Your task to perform on an android device: toggle data saver in the chrome app Image 0: 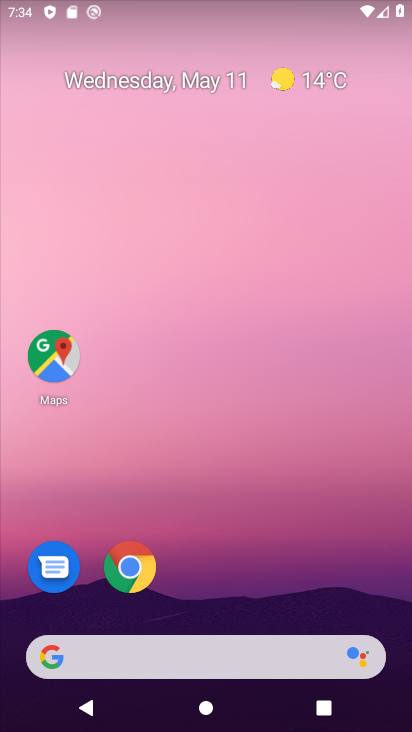
Step 0: drag from (213, 575) to (225, 166)
Your task to perform on an android device: toggle data saver in the chrome app Image 1: 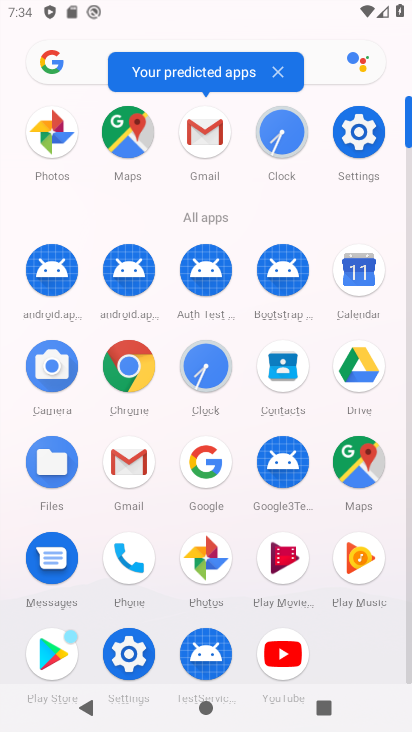
Step 1: click (130, 413)
Your task to perform on an android device: toggle data saver in the chrome app Image 2: 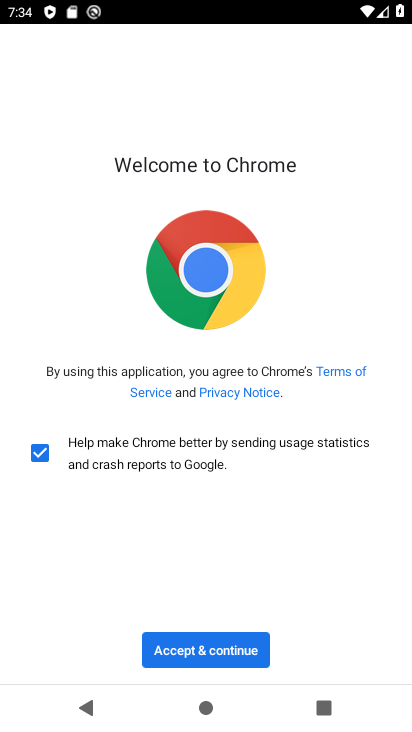
Step 2: click (228, 652)
Your task to perform on an android device: toggle data saver in the chrome app Image 3: 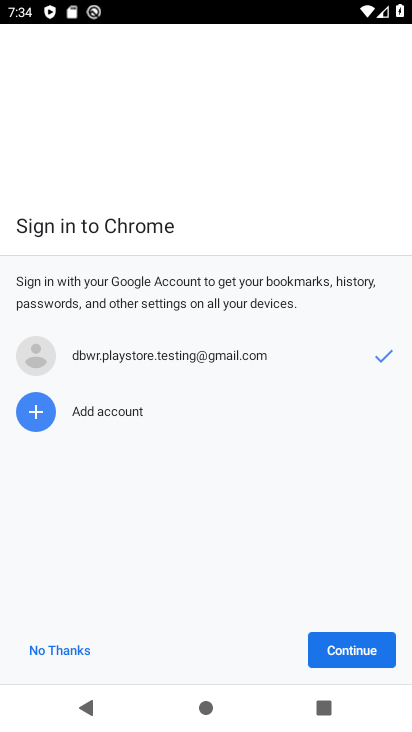
Step 3: click (343, 664)
Your task to perform on an android device: toggle data saver in the chrome app Image 4: 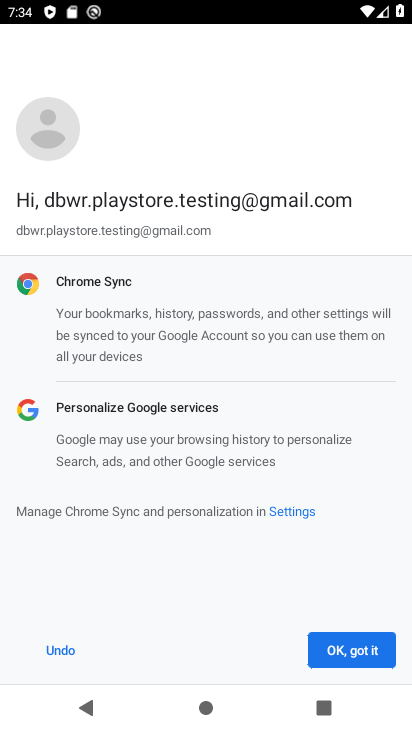
Step 4: click (343, 664)
Your task to perform on an android device: toggle data saver in the chrome app Image 5: 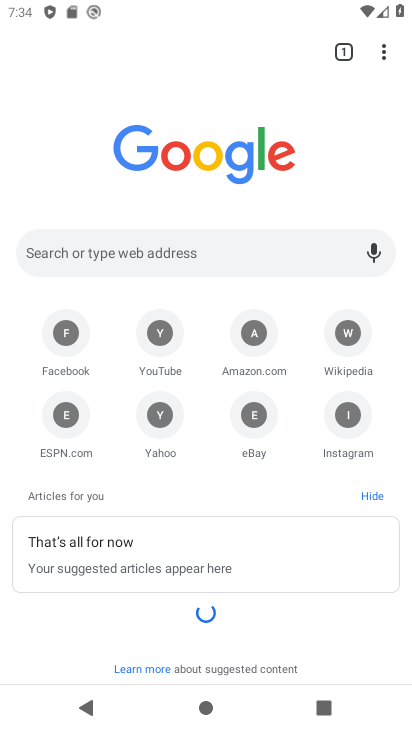
Step 5: click (379, 50)
Your task to perform on an android device: toggle data saver in the chrome app Image 6: 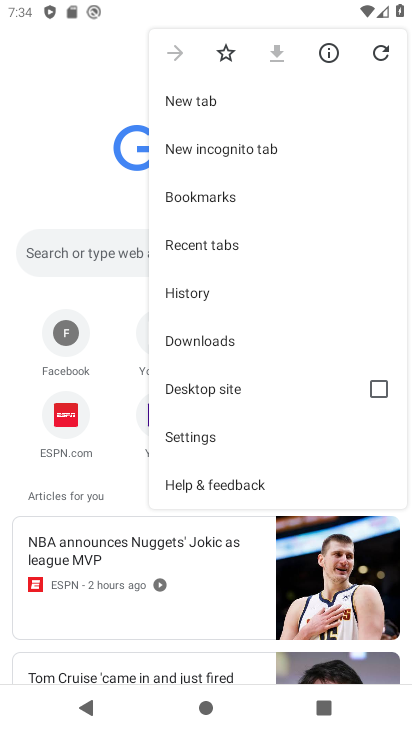
Step 6: click (210, 442)
Your task to perform on an android device: toggle data saver in the chrome app Image 7: 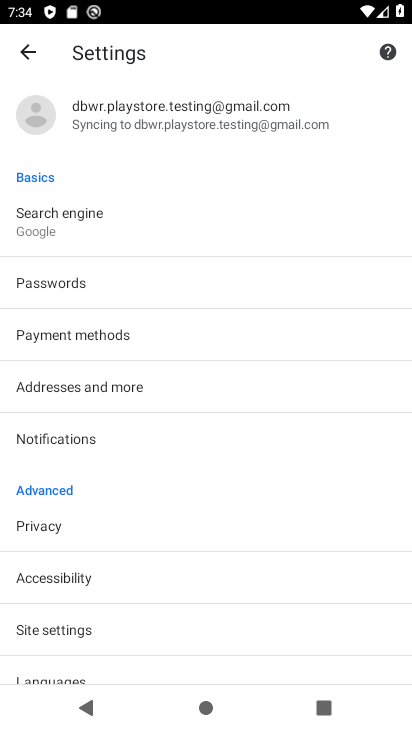
Step 7: drag from (180, 626) to (200, 256)
Your task to perform on an android device: toggle data saver in the chrome app Image 8: 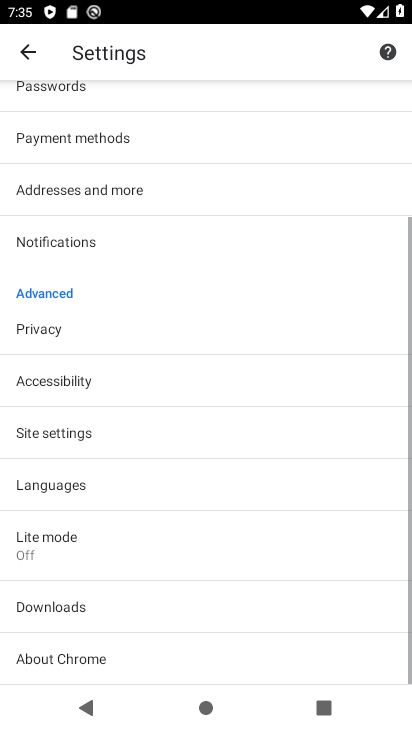
Step 8: drag from (100, 575) to (153, 406)
Your task to perform on an android device: toggle data saver in the chrome app Image 9: 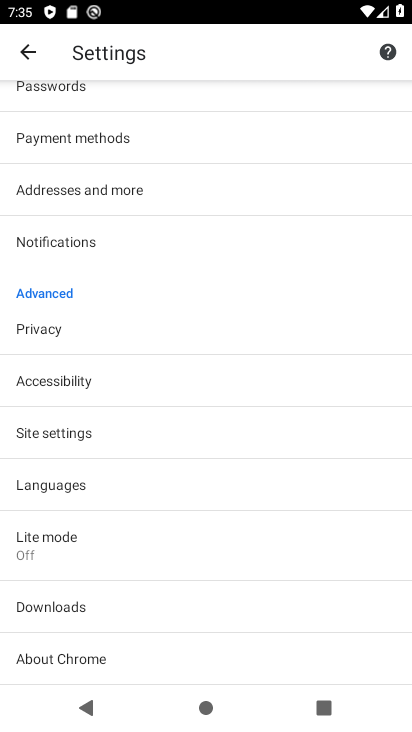
Step 9: click (156, 558)
Your task to perform on an android device: toggle data saver in the chrome app Image 10: 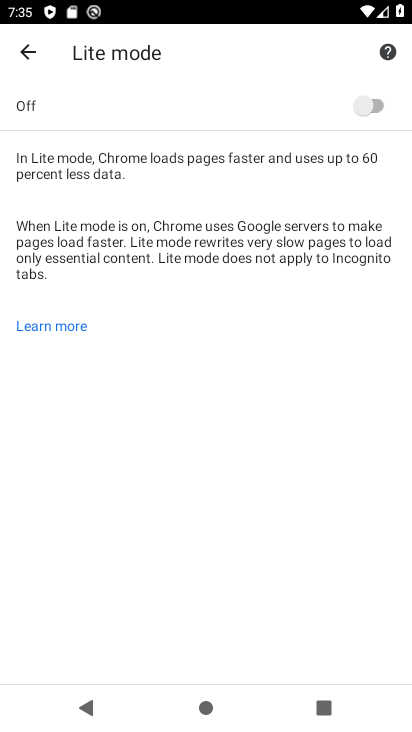
Step 10: click (367, 106)
Your task to perform on an android device: toggle data saver in the chrome app Image 11: 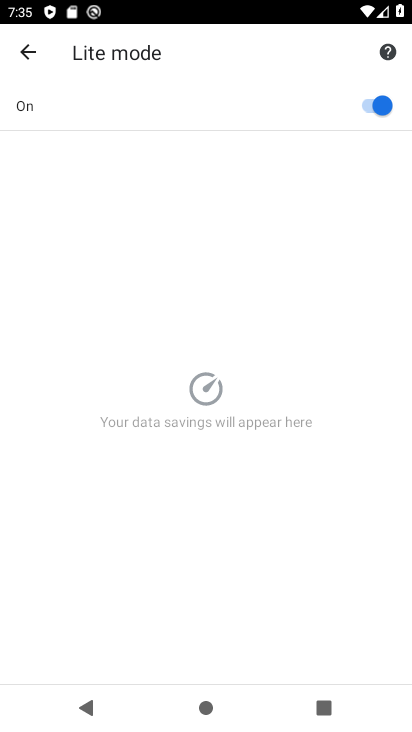
Step 11: task complete